Your task to perform on an android device: Open internet settings Image 0: 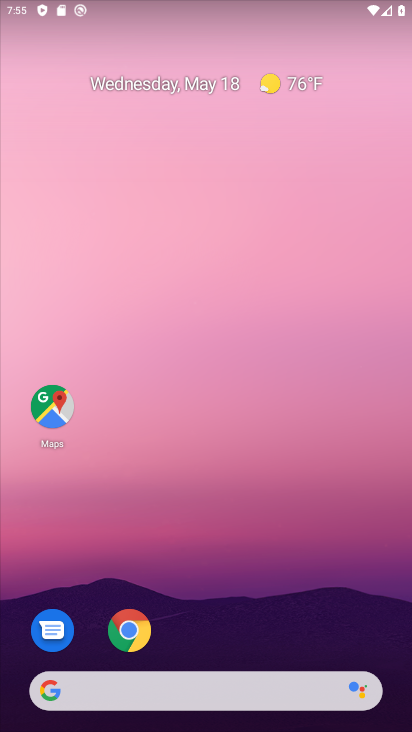
Step 0: drag from (196, 621) to (228, 11)
Your task to perform on an android device: Open internet settings Image 1: 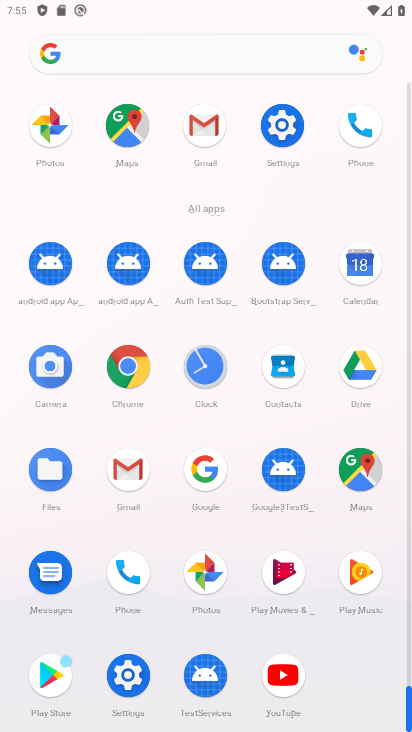
Step 1: click (293, 113)
Your task to perform on an android device: Open internet settings Image 2: 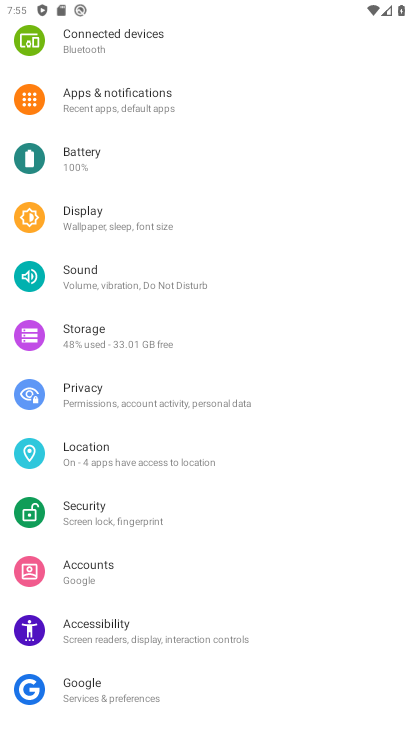
Step 2: drag from (211, 67) to (260, 400)
Your task to perform on an android device: Open internet settings Image 3: 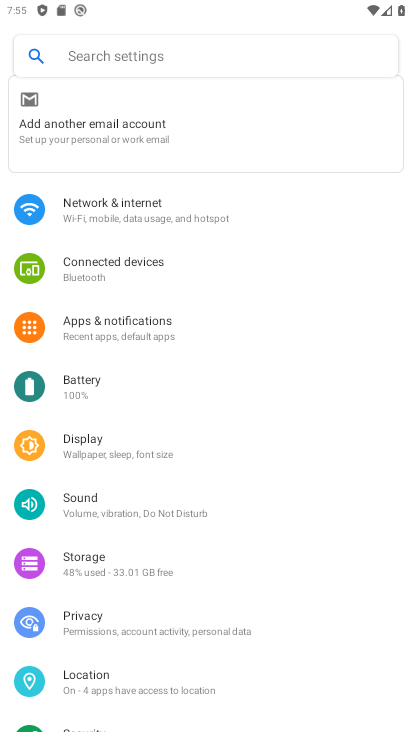
Step 3: click (189, 220)
Your task to perform on an android device: Open internet settings Image 4: 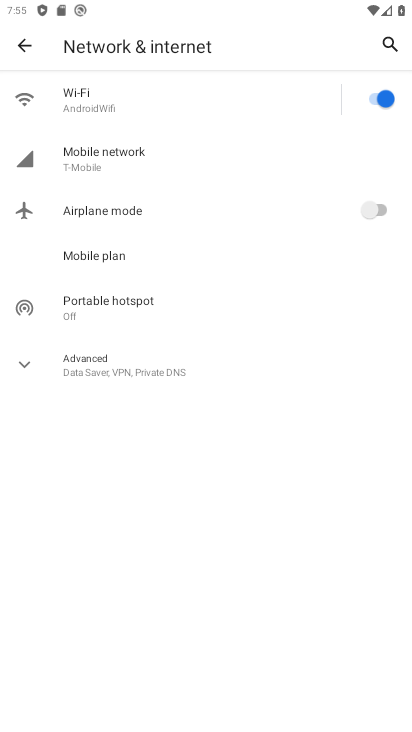
Step 4: task complete